Your task to perform on an android device: Open ESPN.com Image 0: 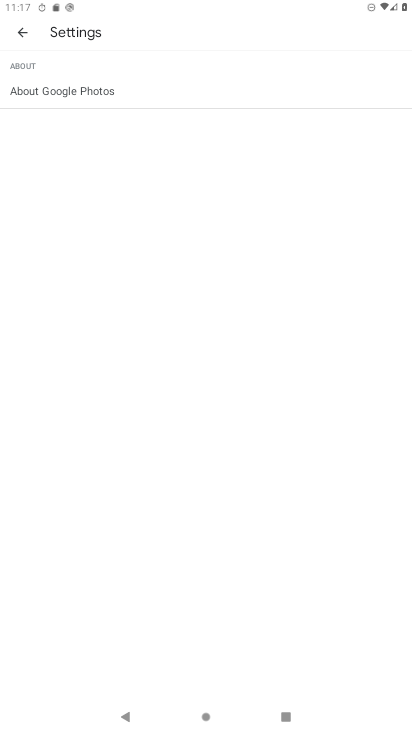
Step 0: press home button
Your task to perform on an android device: Open ESPN.com Image 1: 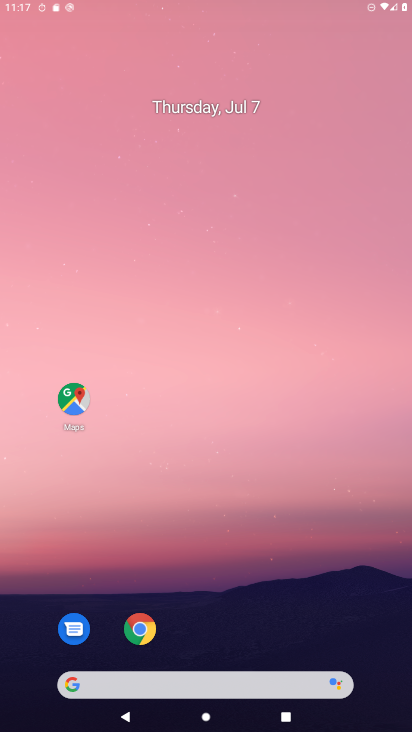
Step 1: drag from (275, 599) to (282, 166)
Your task to perform on an android device: Open ESPN.com Image 2: 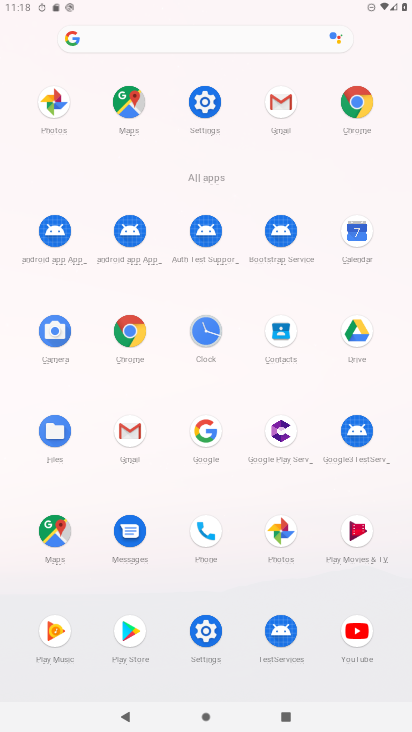
Step 2: click (370, 130)
Your task to perform on an android device: Open ESPN.com Image 3: 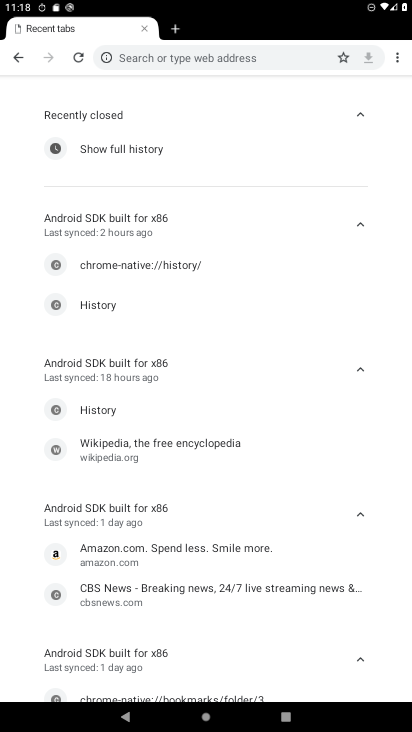
Step 3: click (156, 60)
Your task to perform on an android device: Open ESPN.com Image 4: 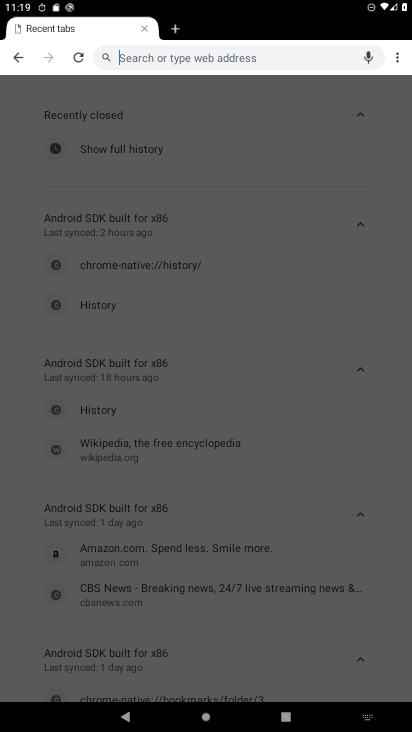
Step 4: type "ESPN.com"
Your task to perform on an android device: Open ESPN.com Image 5: 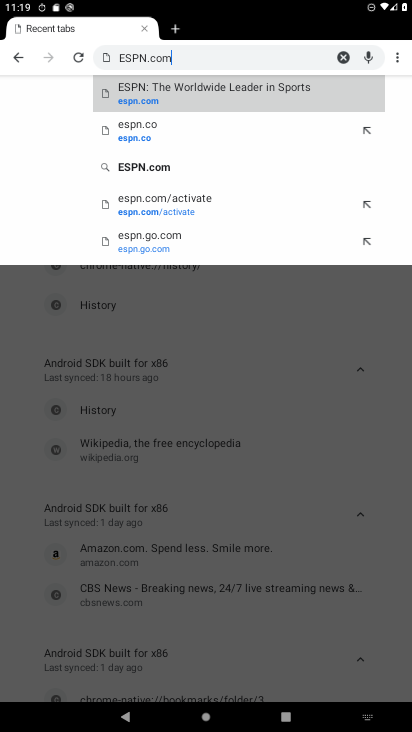
Step 5: type ""
Your task to perform on an android device: Open ESPN.com Image 6: 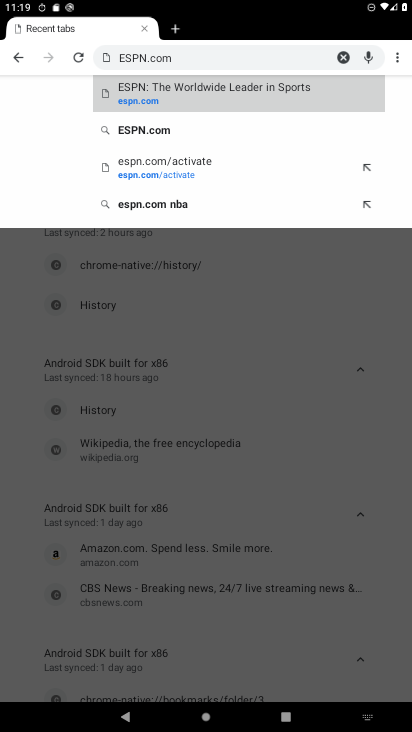
Step 6: click (155, 85)
Your task to perform on an android device: Open ESPN.com Image 7: 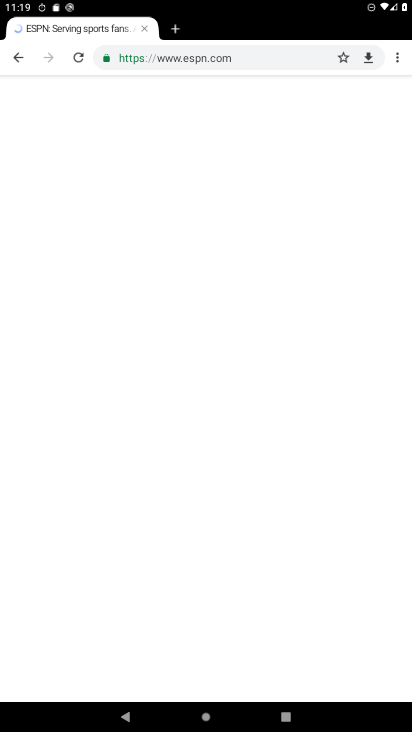
Step 7: task complete